Your task to perform on an android device: turn off smart reply in the gmail app Image 0: 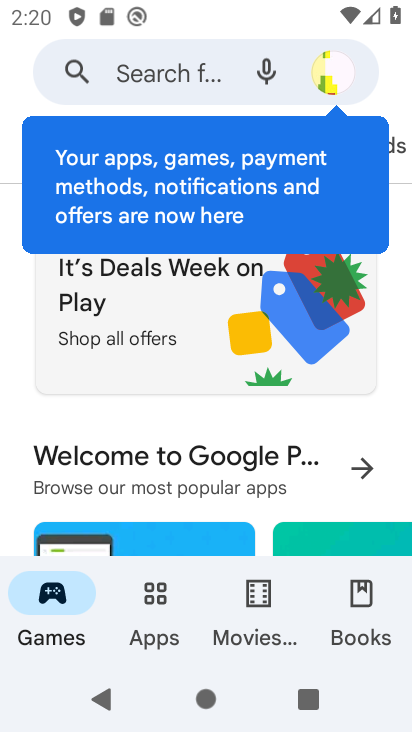
Step 0: press home button
Your task to perform on an android device: turn off smart reply in the gmail app Image 1: 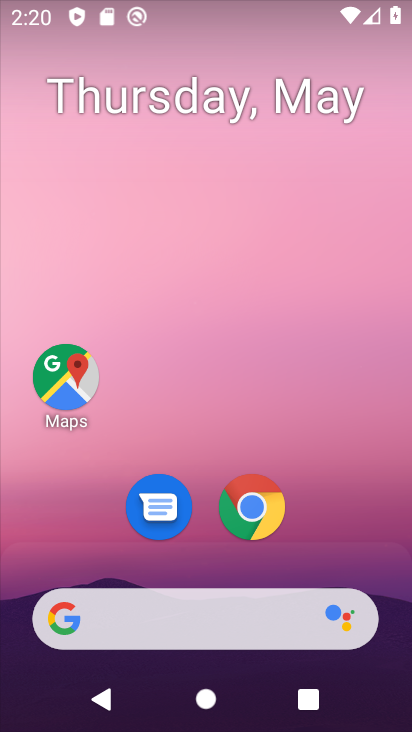
Step 1: drag from (193, 463) to (210, 79)
Your task to perform on an android device: turn off smart reply in the gmail app Image 2: 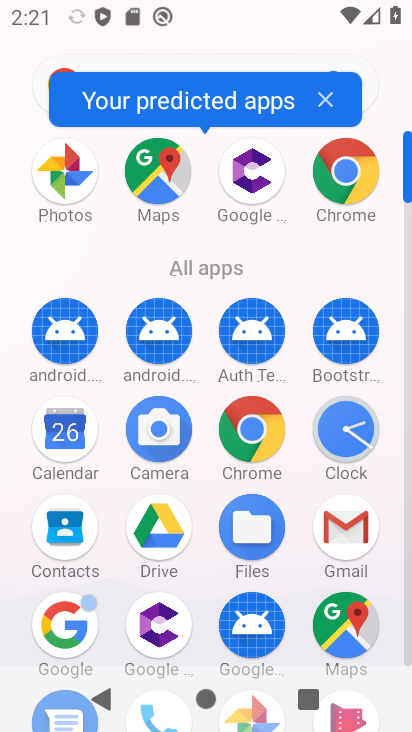
Step 2: click (364, 528)
Your task to perform on an android device: turn off smart reply in the gmail app Image 3: 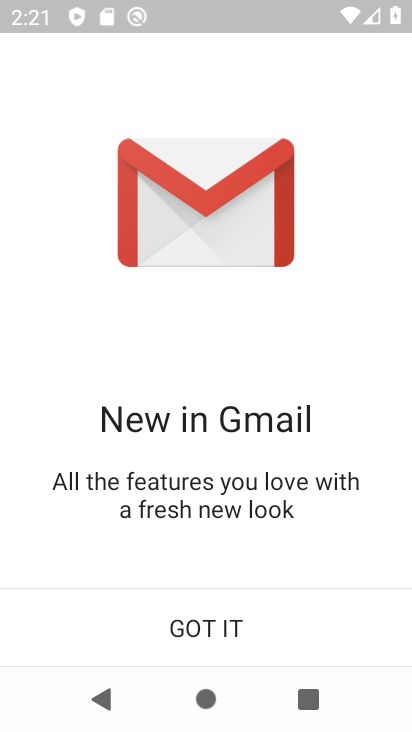
Step 3: click (240, 636)
Your task to perform on an android device: turn off smart reply in the gmail app Image 4: 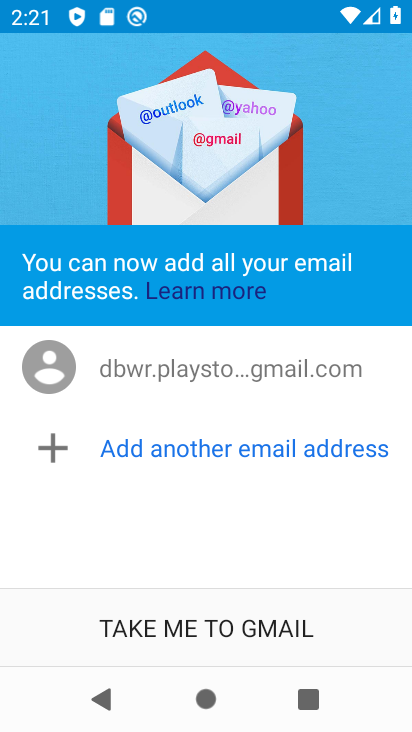
Step 4: click (240, 636)
Your task to perform on an android device: turn off smart reply in the gmail app Image 5: 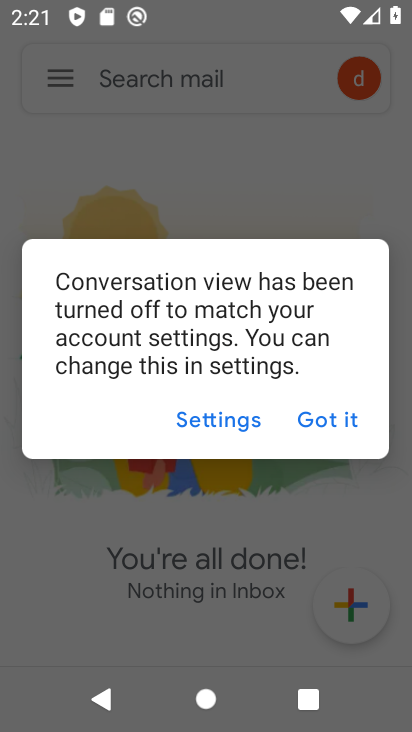
Step 5: click (304, 420)
Your task to perform on an android device: turn off smart reply in the gmail app Image 6: 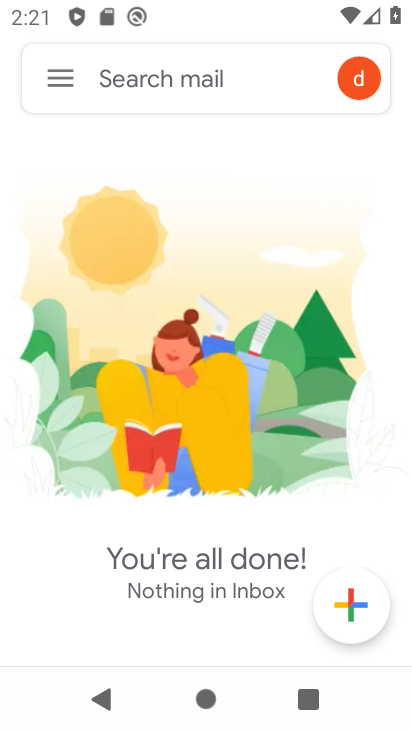
Step 6: click (47, 68)
Your task to perform on an android device: turn off smart reply in the gmail app Image 7: 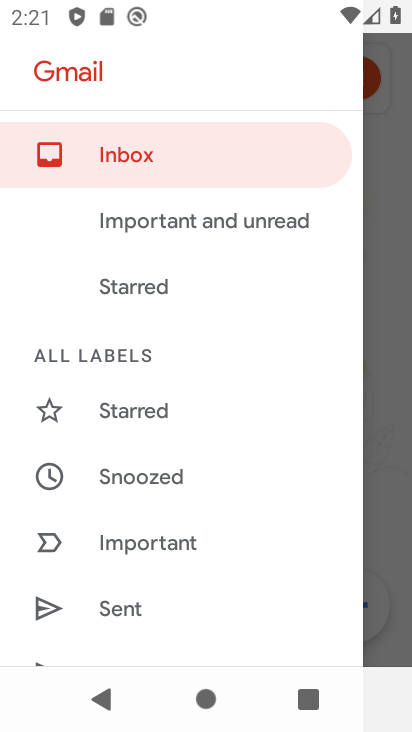
Step 7: drag from (118, 482) to (147, 323)
Your task to perform on an android device: turn off smart reply in the gmail app Image 8: 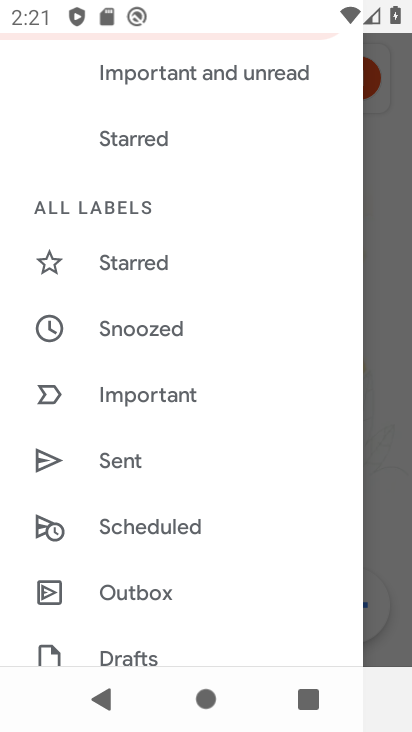
Step 8: drag from (143, 539) to (189, 319)
Your task to perform on an android device: turn off smart reply in the gmail app Image 9: 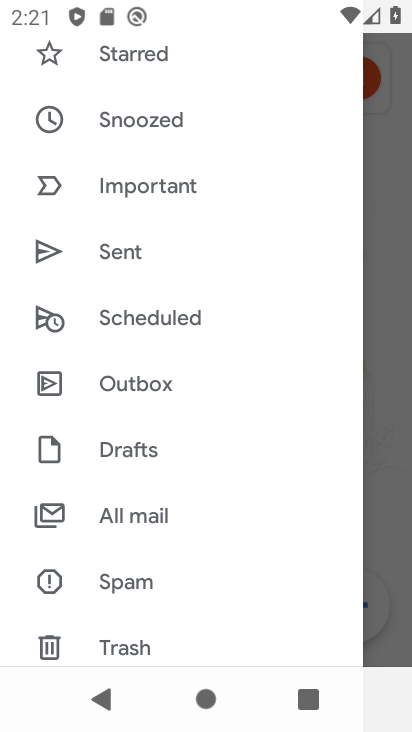
Step 9: drag from (154, 549) to (250, 156)
Your task to perform on an android device: turn off smart reply in the gmail app Image 10: 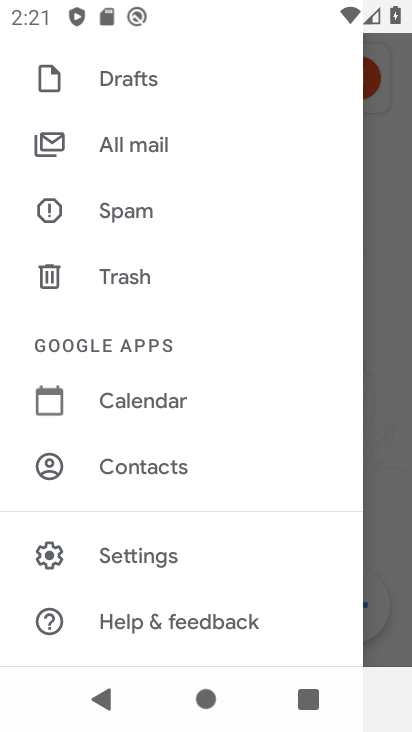
Step 10: click (109, 558)
Your task to perform on an android device: turn off smart reply in the gmail app Image 11: 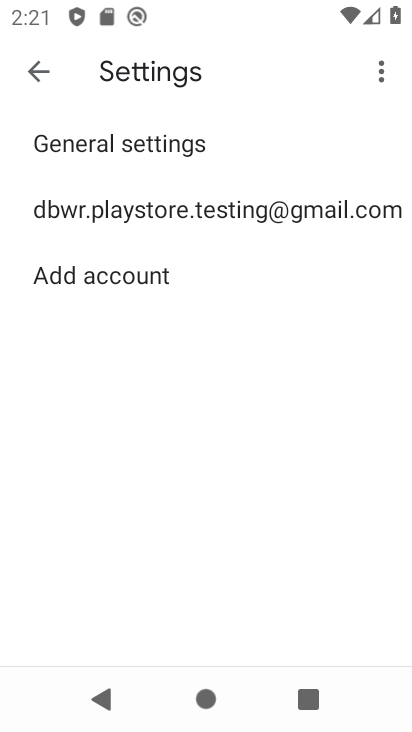
Step 11: click (136, 222)
Your task to perform on an android device: turn off smart reply in the gmail app Image 12: 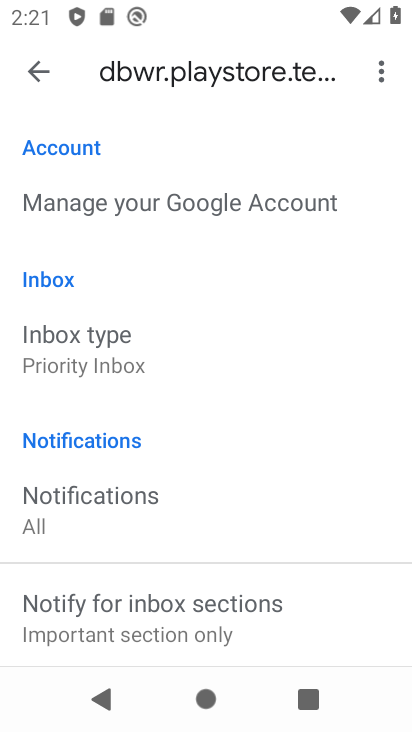
Step 12: drag from (183, 530) to (201, 276)
Your task to perform on an android device: turn off smart reply in the gmail app Image 13: 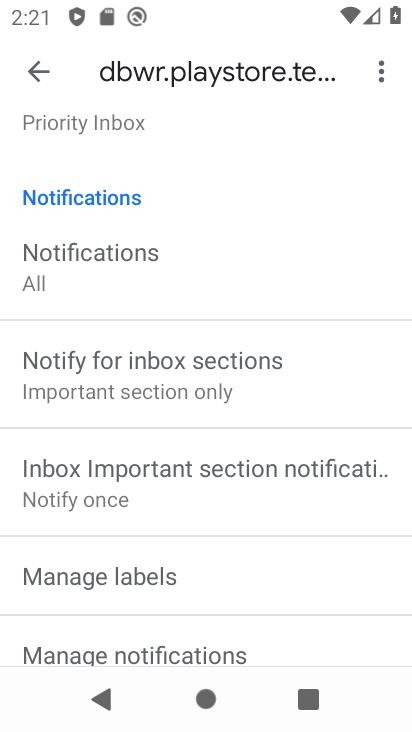
Step 13: drag from (188, 564) to (209, 295)
Your task to perform on an android device: turn off smart reply in the gmail app Image 14: 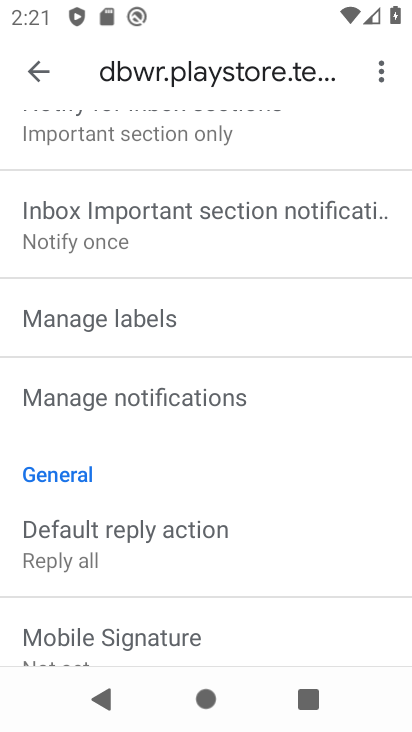
Step 14: drag from (210, 554) to (230, 173)
Your task to perform on an android device: turn off smart reply in the gmail app Image 15: 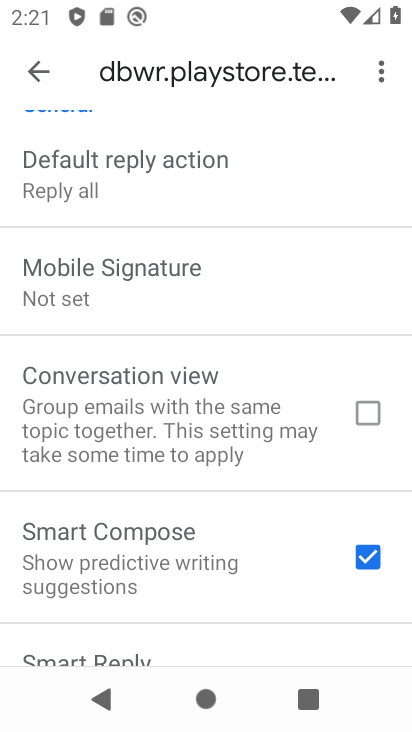
Step 15: drag from (217, 545) to (228, 216)
Your task to perform on an android device: turn off smart reply in the gmail app Image 16: 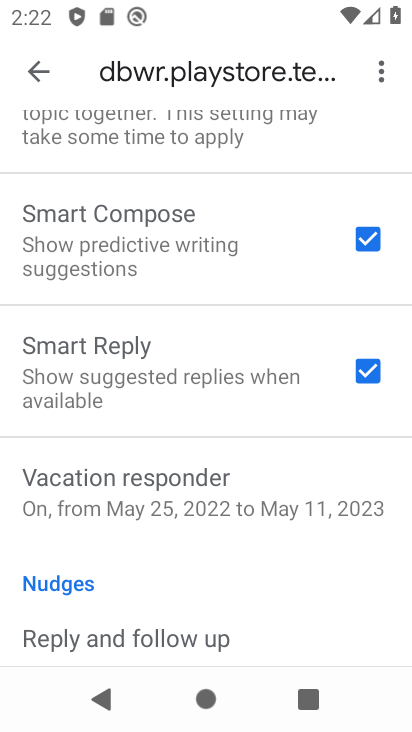
Step 16: click (378, 380)
Your task to perform on an android device: turn off smart reply in the gmail app Image 17: 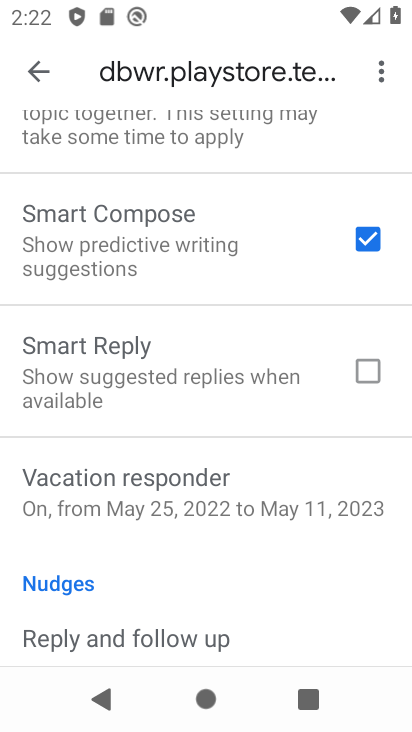
Step 17: task complete